Your task to perform on an android device: Is it going to rain today? Image 0: 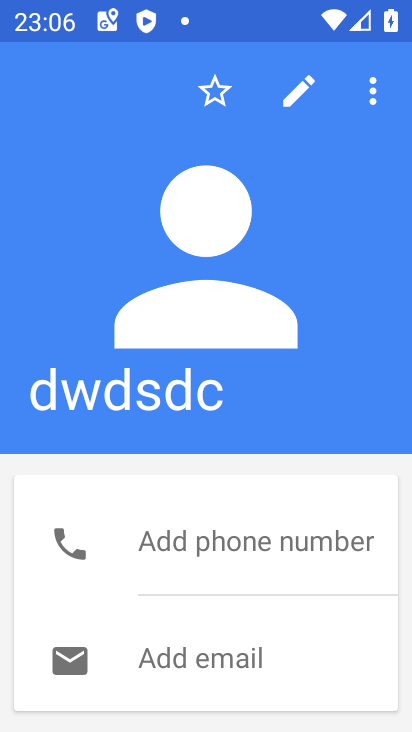
Step 0: press home button
Your task to perform on an android device: Is it going to rain today? Image 1: 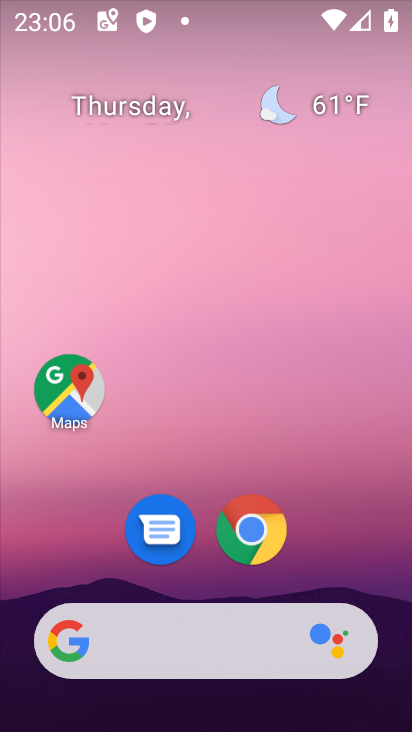
Step 1: drag from (373, 515) to (371, 1)
Your task to perform on an android device: Is it going to rain today? Image 2: 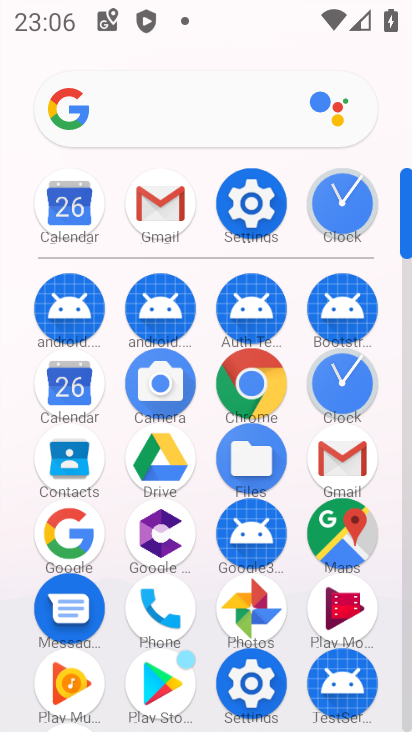
Step 2: click (159, 127)
Your task to perform on an android device: Is it going to rain today? Image 3: 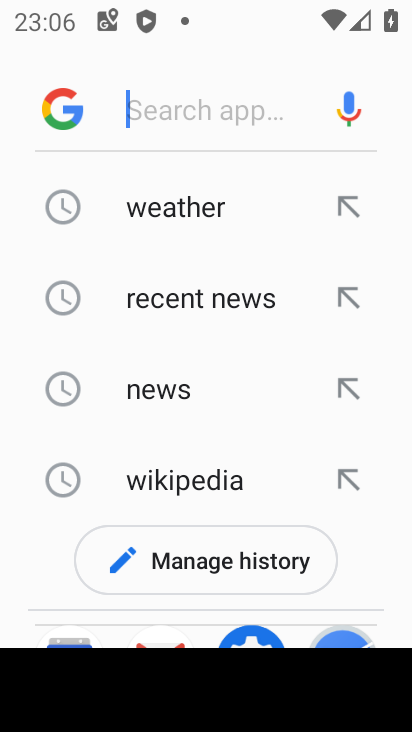
Step 3: click (181, 217)
Your task to perform on an android device: Is it going to rain today? Image 4: 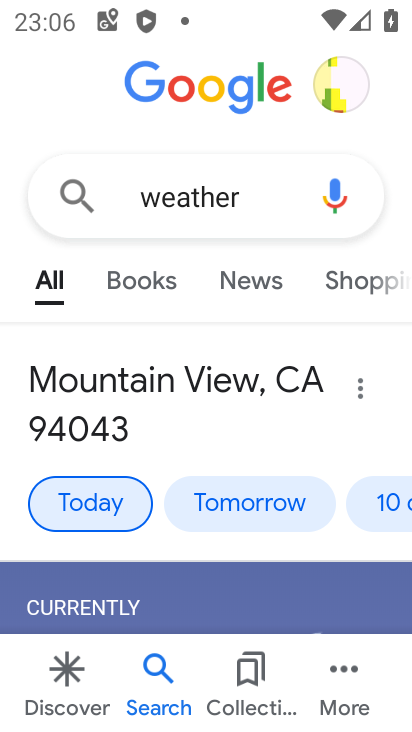
Step 4: task complete